Your task to perform on an android device: turn off location Image 0: 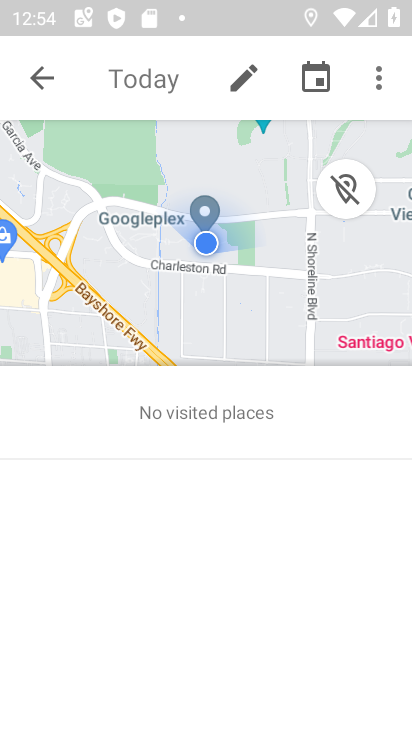
Step 0: press home button
Your task to perform on an android device: turn off location Image 1: 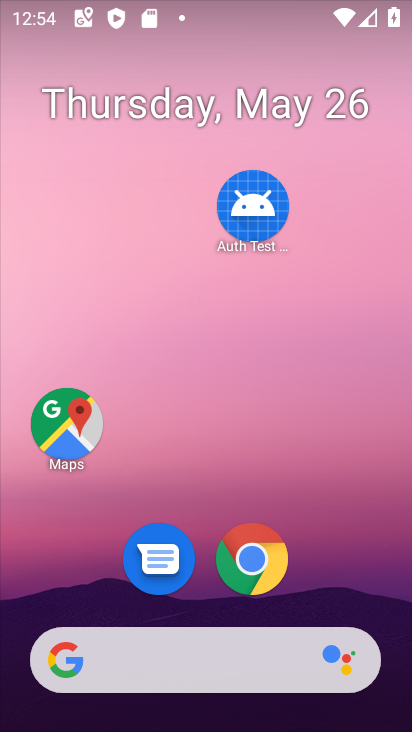
Step 1: drag from (365, 574) to (260, 38)
Your task to perform on an android device: turn off location Image 2: 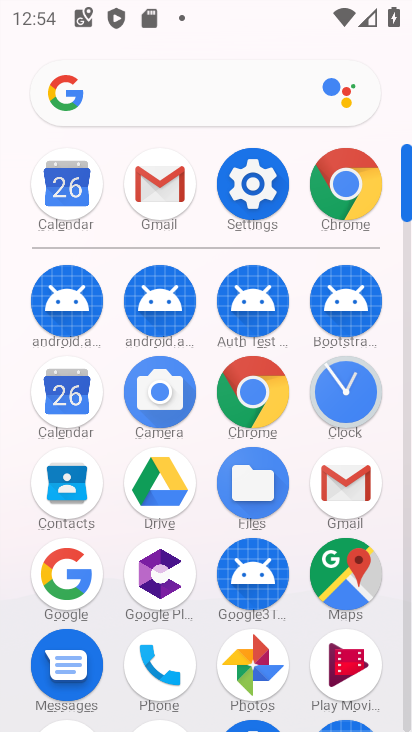
Step 2: click (259, 199)
Your task to perform on an android device: turn off location Image 3: 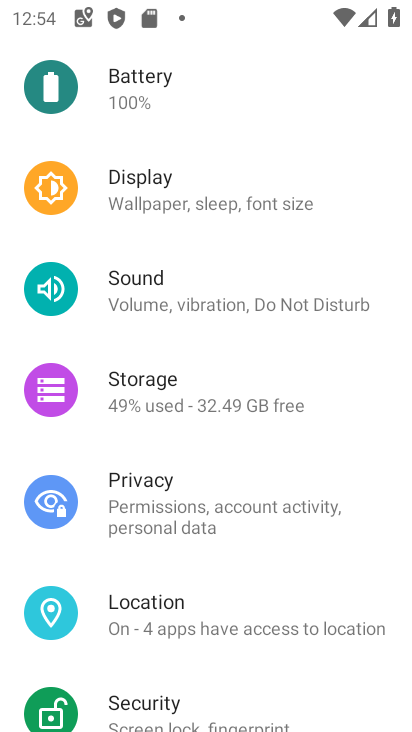
Step 3: click (203, 604)
Your task to perform on an android device: turn off location Image 4: 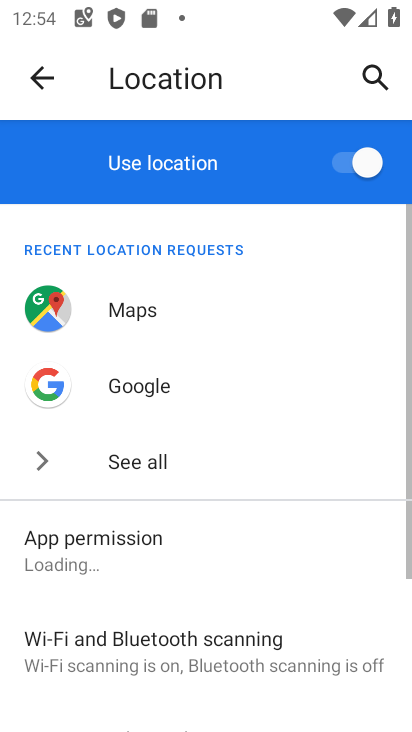
Step 4: click (367, 167)
Your task to perform on an android device: turn off location Image 5: 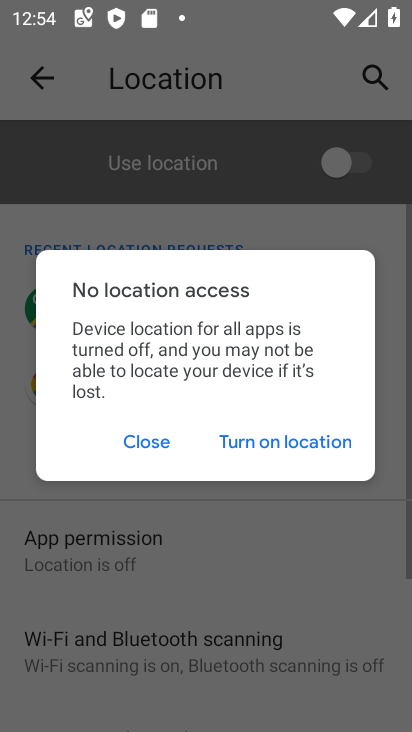
Step 5: task complete